Your task to perform on an android device: Clear all items from cart on ebay. Search for jbl charge 4 on ebay, select the first entry, and add it to the cart. Image 0: 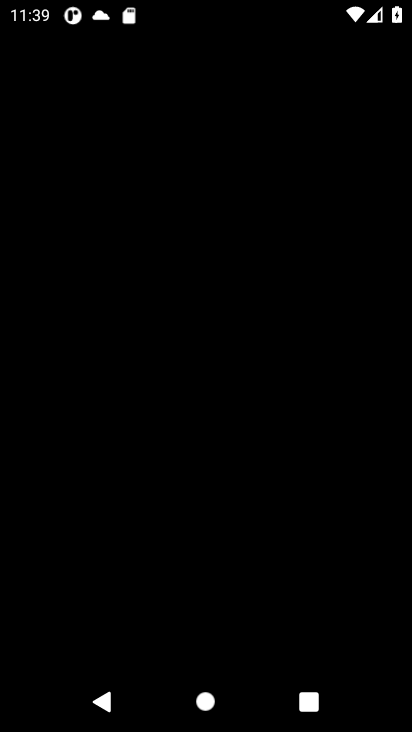
Step 0: click (127, 626)
Your task to perform on an android device: Clear all items from cart on ebay. Search for jbl charge 4 on ebay, select the first entry, and add it to the cart. Image 1: 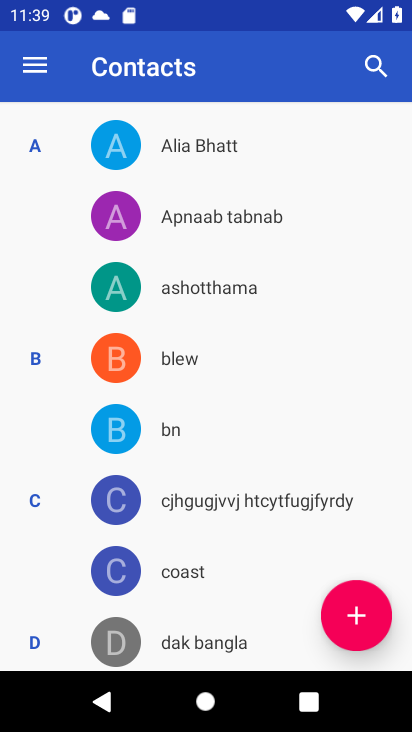
Step 1: press home button
Your task to perform on an android device: Clear all items from cart on ebay. Search for jbl charge 4 on ebay, select the first entry, and add it to the cart. Image 2: 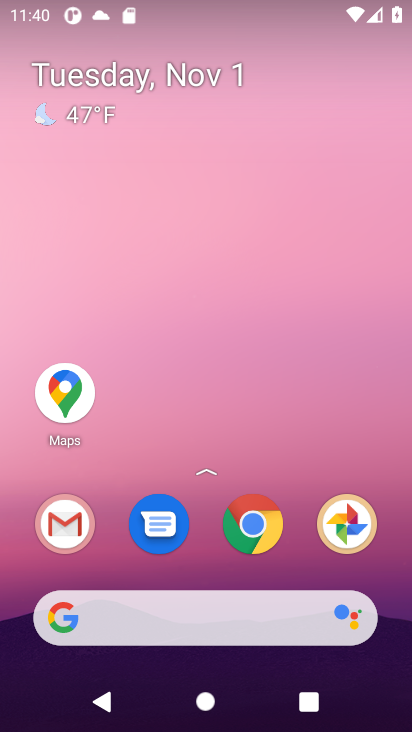
Step 2: click (131, 616)
Your task to perform on an android device: Clear all items from cart on ebay. Search for jbl charge 4 on ebay, select the first entry, and add it to the cart. Image 3: 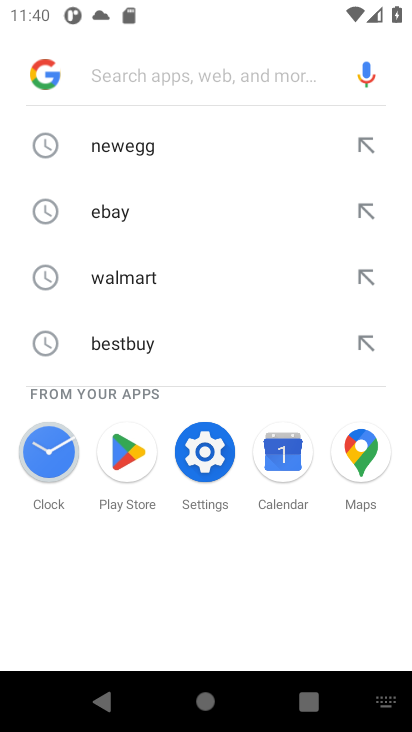
Step 3: click (115, 214)
Your task to perform on an android device: Clear all items from cart on ebay. Search for jbl charge 4 on ebay, select the first entry, and add it to the cart. Image 4: 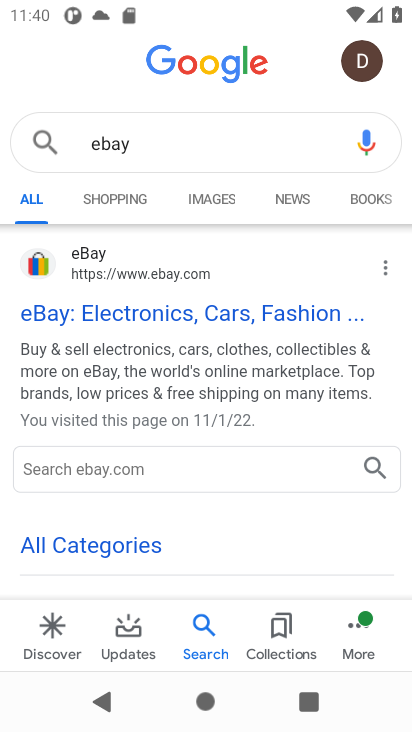
Step 4: click (226, 317)
Your task to perform on an android device: Clear all items from cart on ebay. Search for jbl charge 4 on ebay, select the first entry, and add it to the cart. Image 5: 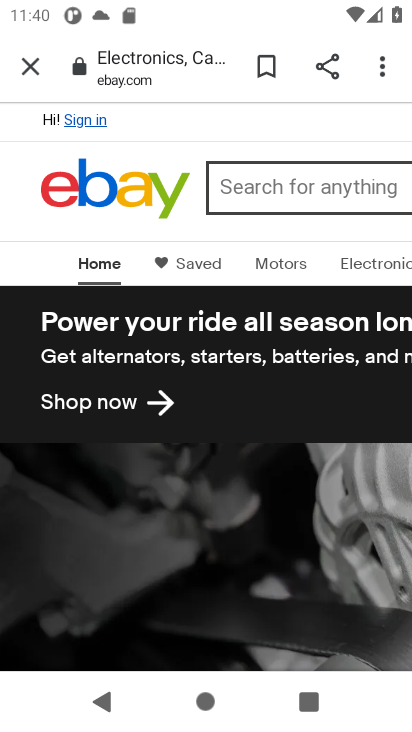
Step 5: drag from (344, 232) to (0, 229)
Your task to perform on an android device: Clear all items from cart on ebay. Search for jbl charge 4 on ebay, select the first entry, and add it to the cart. Image 6: 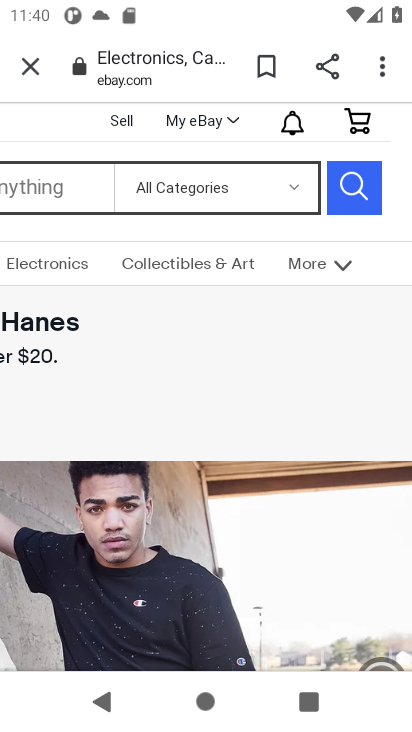
Step 6: click (360, 118)
Your task to perform on an android device: Clear all items from cart on ebay. Search for jbl charge 4 on ebay, select the first entry, and add it to the cart. Image 7: 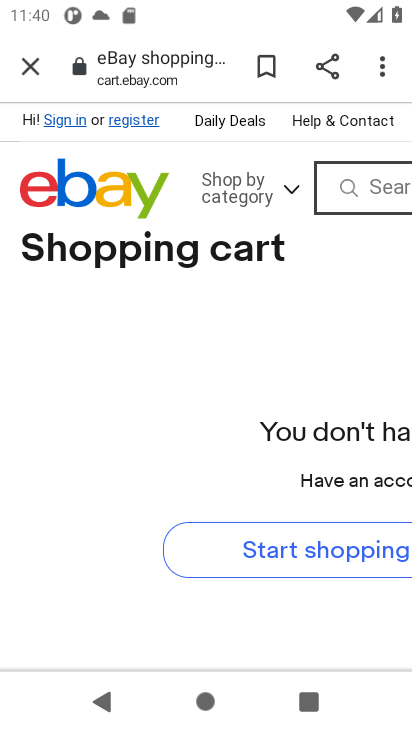
Step 7: click (357, 192)
Your task to perform on an android device: Clear all items from cart on ebay. Search for jbl charge 4 on ebay, select the first entry, and add it to the cart. Image 8: 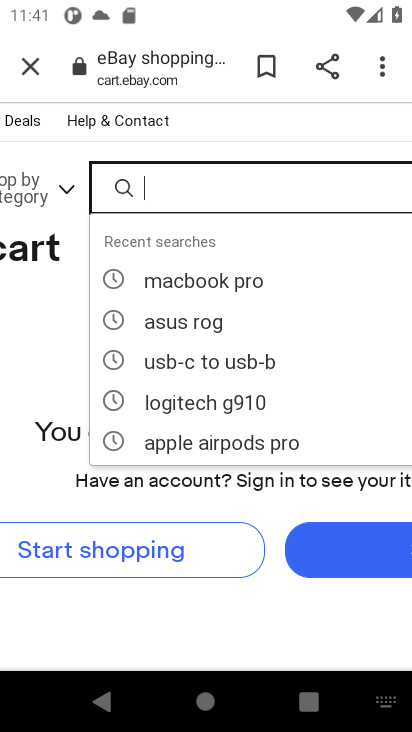
Step 8: type " jbl charge 4 "
Your task to perform on an android device: Clear all items from cart on ebay. Search for jbl charge 4 on ebay, select the first entry, and add it to the cart. Image 9: 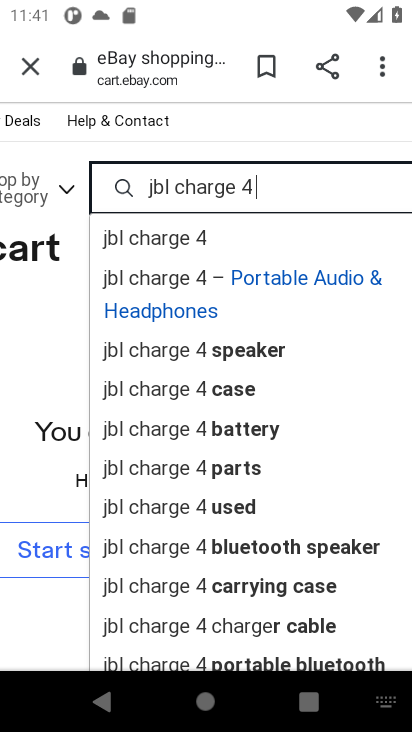
Step 9: press enter
Your task to perform on an android device: Clear all items from cart on ebay. Search for jbl charge 4 on ebay, select the first entry, and add it to the cart. Image 10: 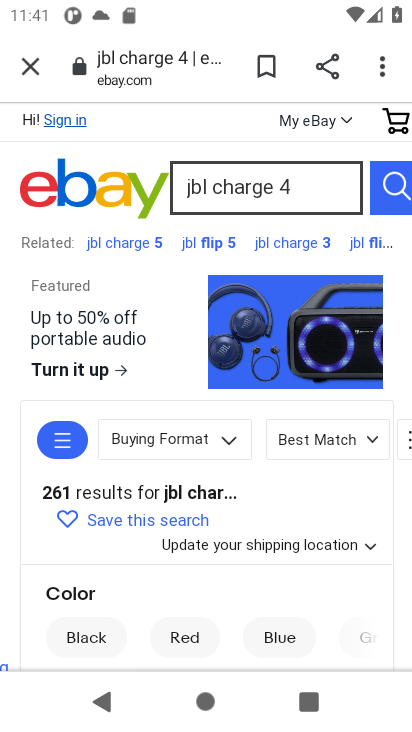
Step 10: drag from (272, 593) to (260, 346)
Your task to perform on an android device: Clear all items from cart on ebay. Search for jbl charge 4 on ebay, select the first entry, and add it to the cart. Image 11: 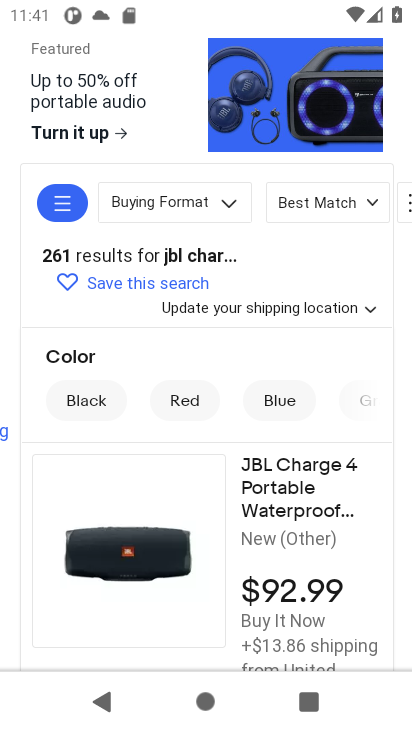
Step 11: click (296, 504)
Your task to perform on an android device: Clear all items from cart on ebay. Search for jbl charge 4 on ebay, select the first entry, and add it to the cart. Image 12: 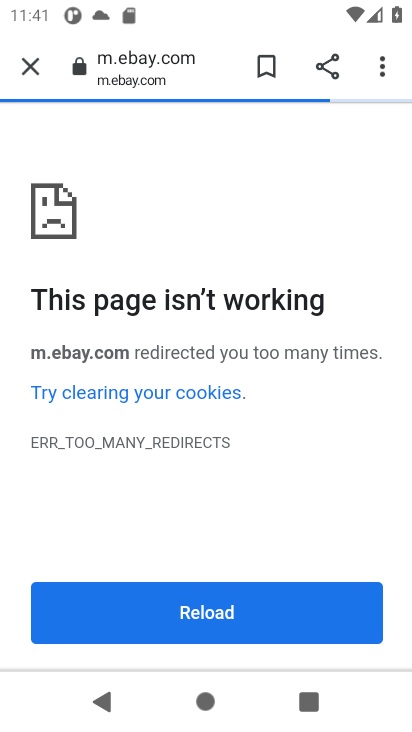
Step 12: task complete